Your task to perform on an android device: Show me popular games on the Play Store Image 0: 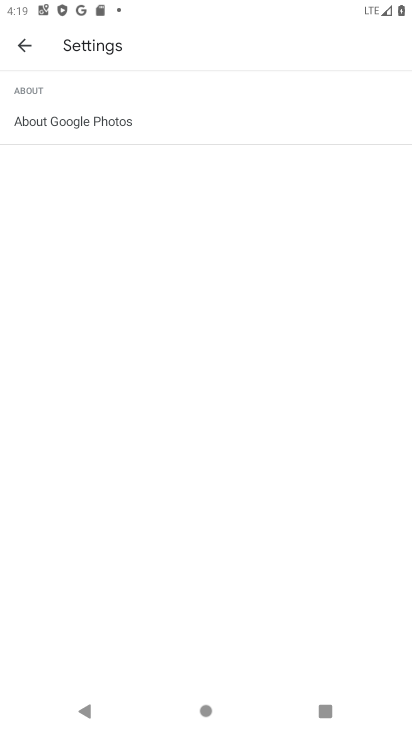
Step 0: press home button
Your task to perform on an android device: Show me popular games on the Play Store Image 1: 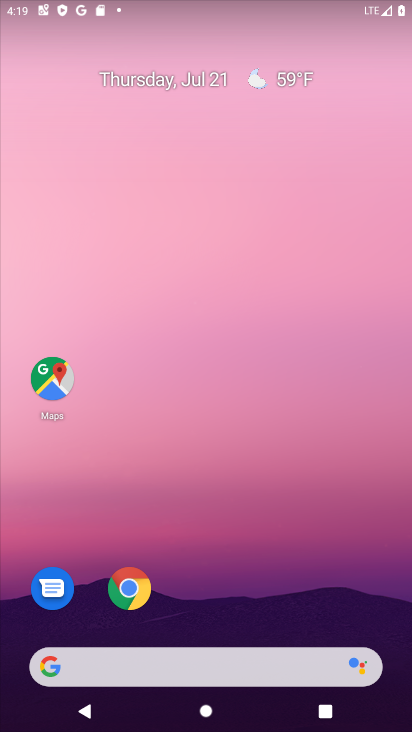
Step 1: drag from (229, 727) to (229, 293)
Your task to perform on an android device: Show me popular games on the Play Store Image 2: 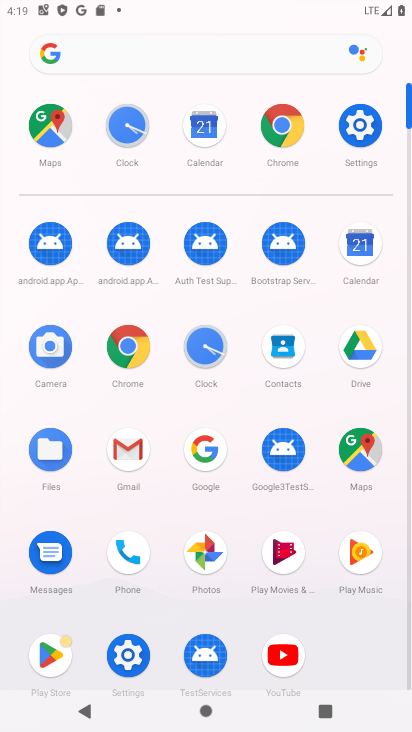
Step 2: click (48, 653)
Your task to perform on an android device: Show me popular games on the Play Store Image 3: 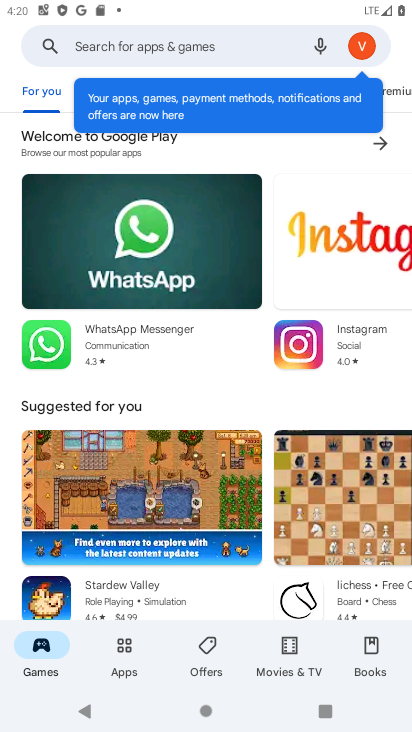
Step 3: drag from (169, 580) to (190, 267)
Your task to perform on an android device: Show me popular games on the Play Store Image 4: 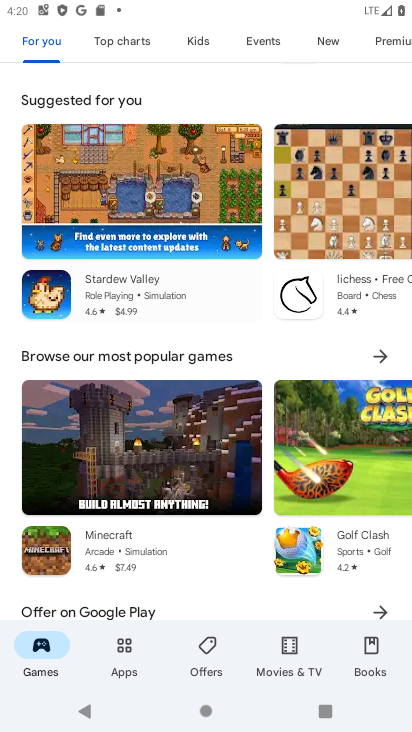
Step 4: drag from (261, 601) to (256, 318)
Your task to perform on an android device: Show me popular games on the Play Store Image 5: 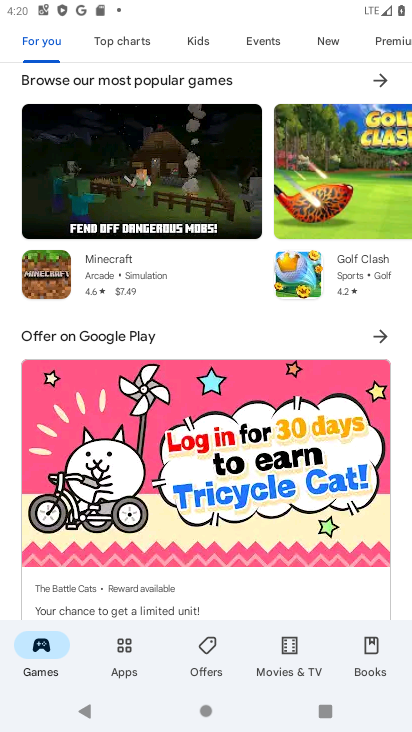
Step 5: drag from (261, 515) to (257, 189)
Your task to perform on an android device: Show me popular games on the Play Store Image 6: 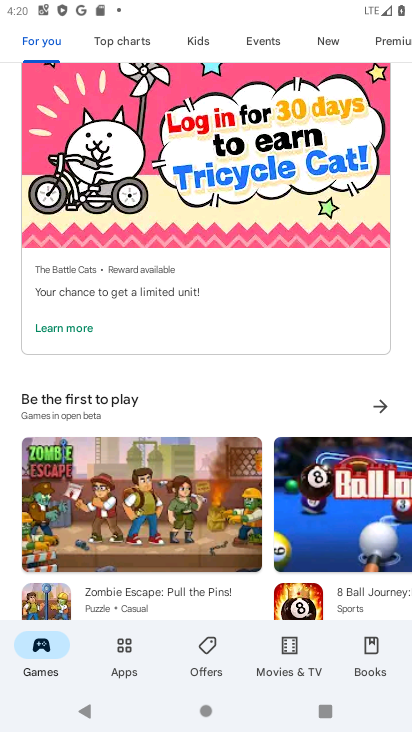
Step 6: drag from (231, 600) to (237, 186)
Your task to perform on an android device: Show me popular games on the Play Store Image 7: 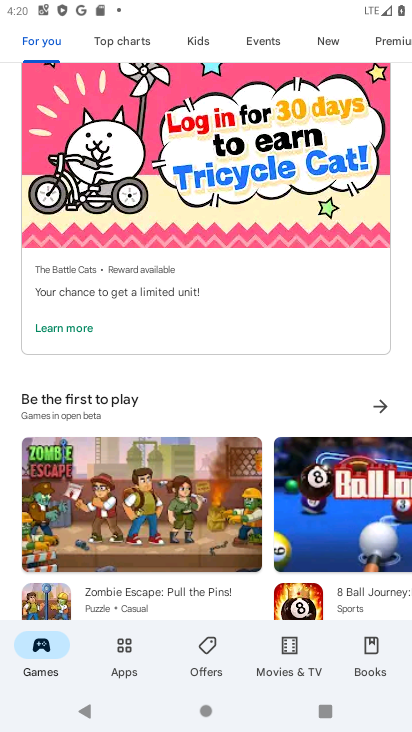
Step 7: drag from (242, 562) to (222, 202)
Your task to perform on an android device: Show me popular games on the Play Store Image 8: 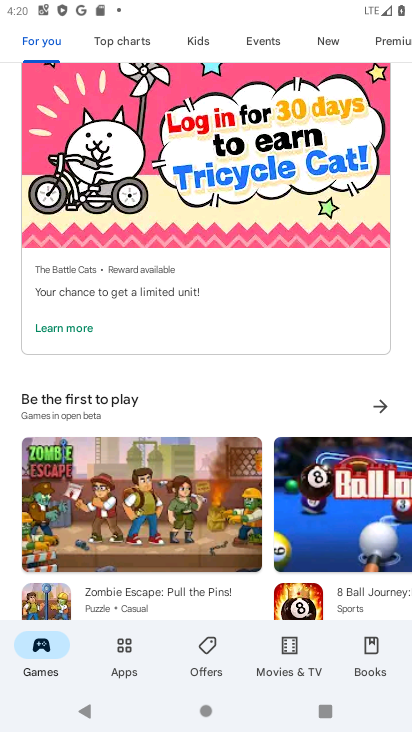
Step 8: drag from (257, 407) to (257, 122)
Your task to perform on an android device: Show me popular games on the Play Store Image 9: 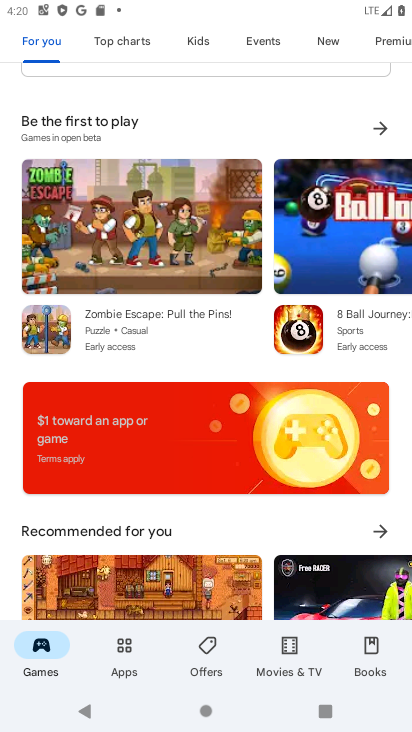
Step 9: drag from (249, 584) to (244, 321)
Your task to perform on an android device: Show me popular games on the Play Store Image 10: 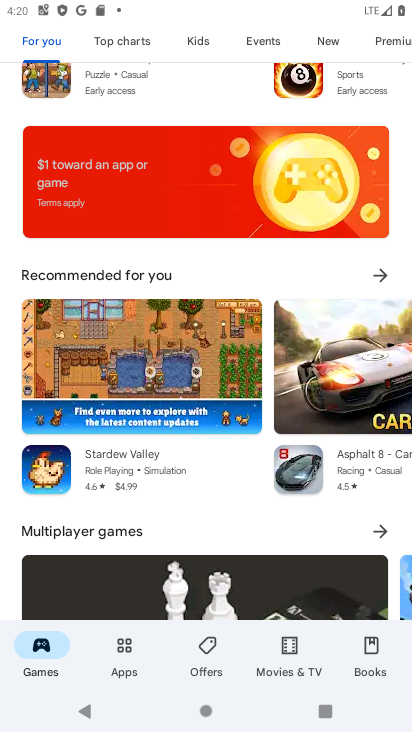
Step 10: drag from (221, 562) to (206, 250)
Your task to perform on an android device: Show me popular games on the Play Store Image 11: 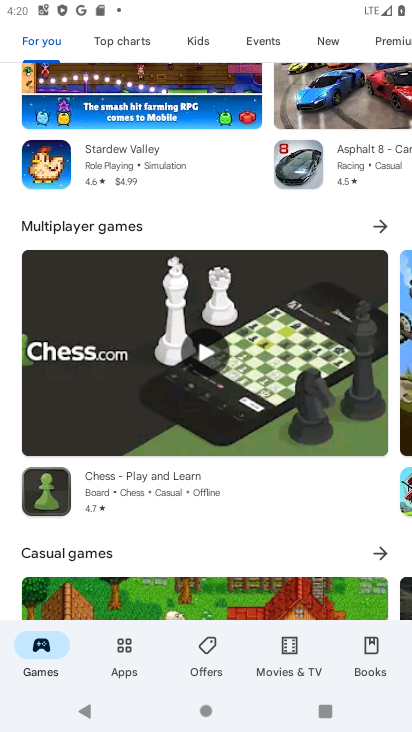
Step 11: drag from (198, 536) to (191, 255)
Your task to perform on an android device: Show me popular games on the Play Store Image 12: 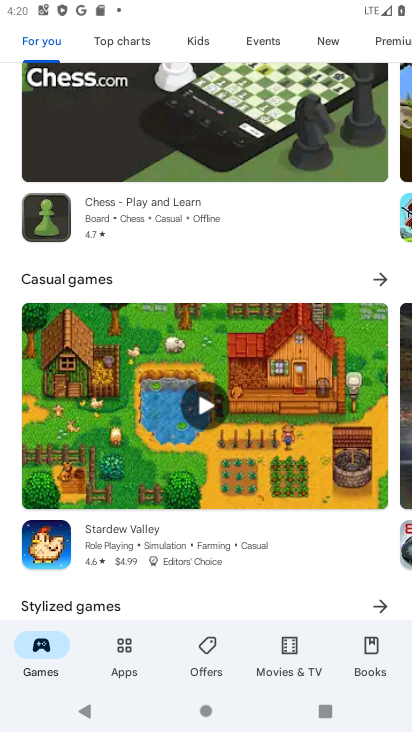
Step 12: drag from (162, 596) to (171, 207)
Your task to perform on an android device: Show me popular games on the Play Store Image 13: 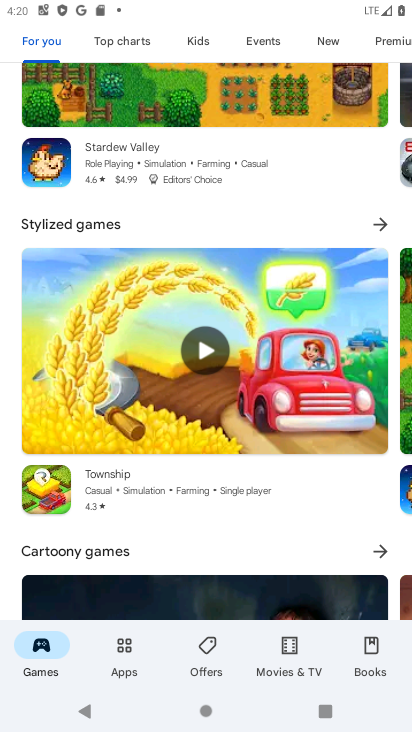
Step 13: drag from (210, 569) to (212, 86)
Your task to perform on an android device: Show me popular games on the Play Store Image 14: 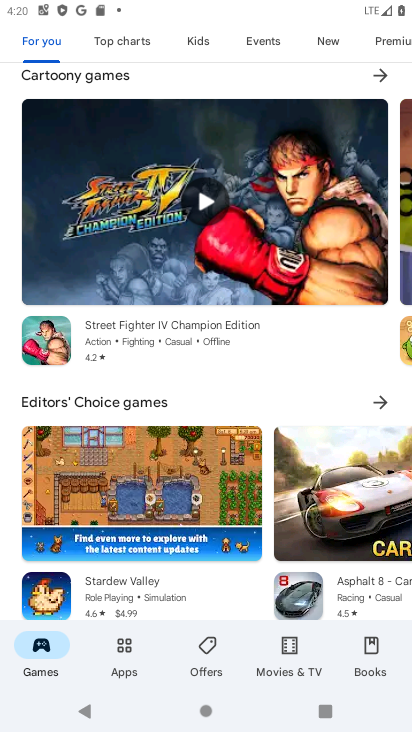
Step 14: drag from (186, 600) to (195, 207)
Your task to perform on an android device: Show me popular games on the Play Store Image 15: 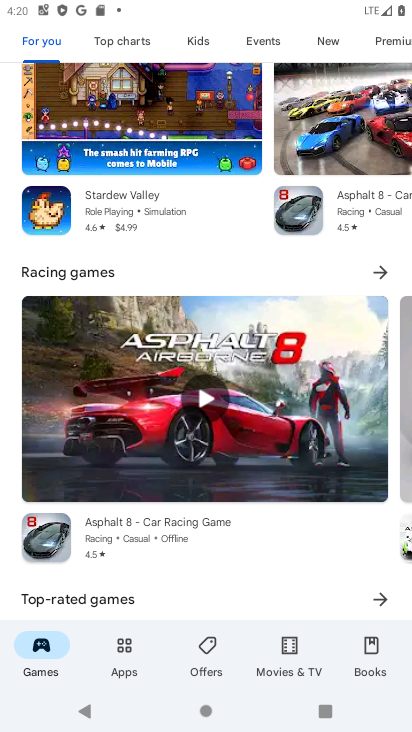
Step 15: drag from (278, 149) to (270, 615)
Your task to perform on an android device: Show me popular games on the Play Store Image 16: 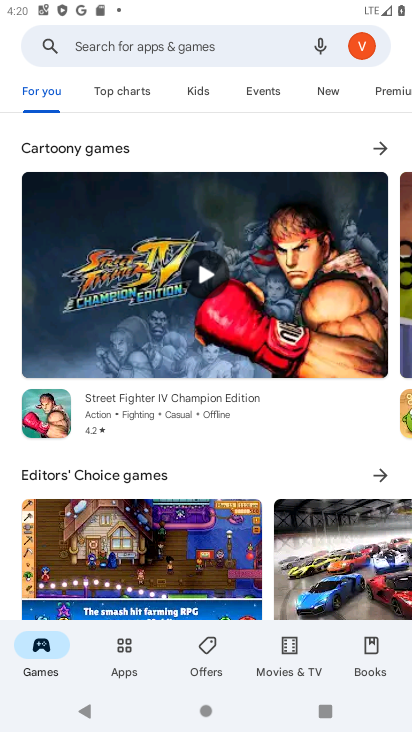
Step 16: drag from (246, 576) to (232, 169)
Your task to perform on an android device: Show me popular games on the Play Store Image 17: 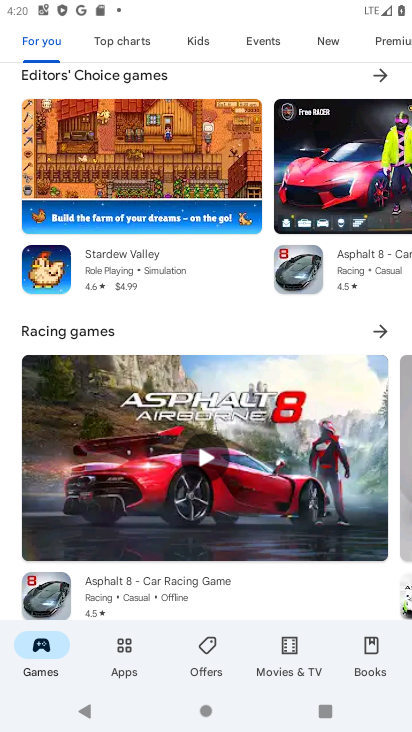
Step 17: drag from (249, 555) to (249, 257)
Your task to perform on an android device: Show me popular games on the Play Store Image 18: 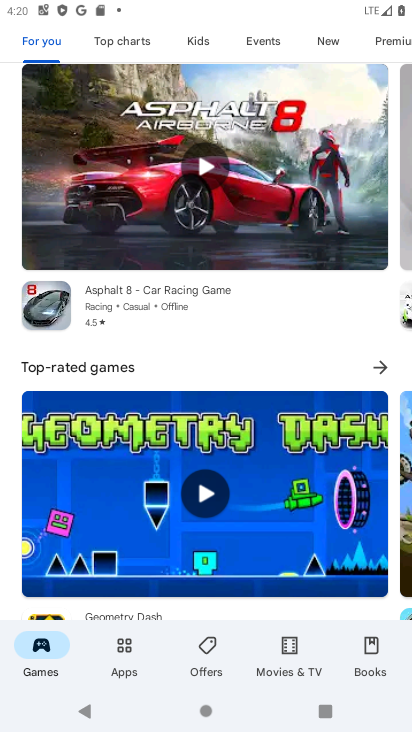
Step 18: drag from (234, 523) to (235, 233)
Your task to perform on an android device: Show me popular games on the Play Store Image 19: 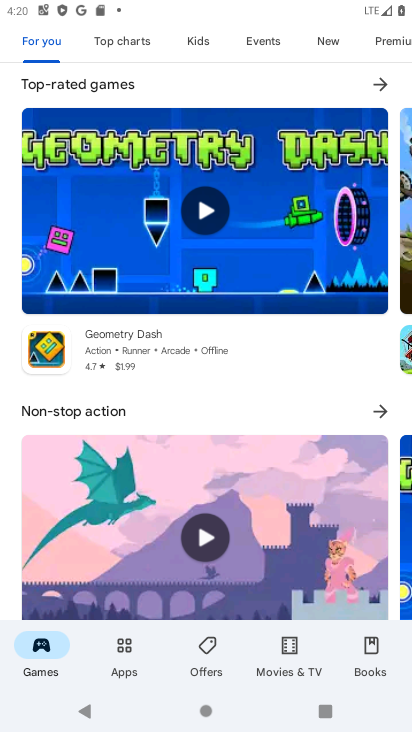
Step 19: drag from (209, 558) to (204, 172)
Your task to perform on an android device: Show me popular games on the Play Store Image 20: 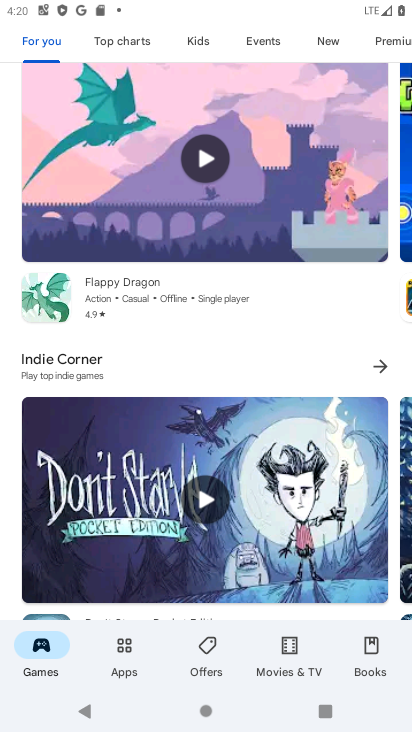
Step 20: drag from (250, 159) to (253, 558)
Your task to perform on an android device: Show me popular games on the Play Store Image 21: 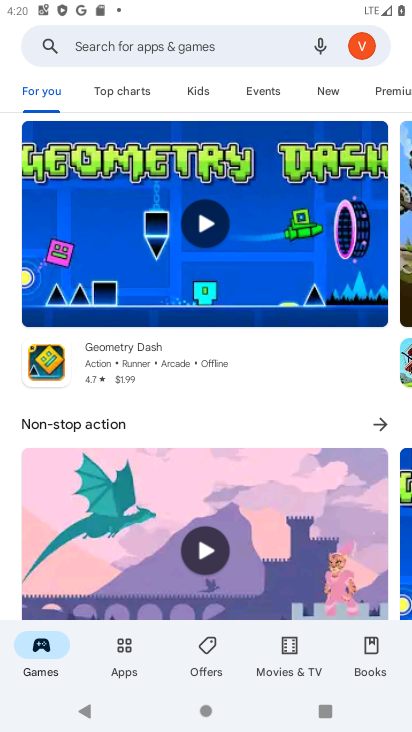
Step 21: click (43, 645)
Your task to perform on an android device: Show me popular games on the Play Store Image 22: 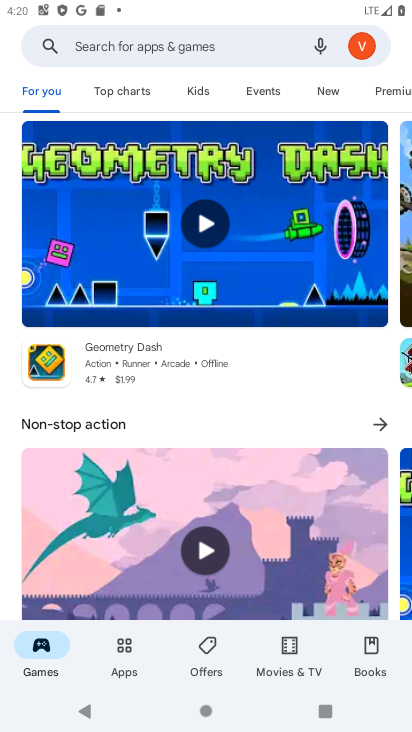
Step 22: drag from (217, 141) to (215, 605)
Your task to perform on an android device: Show me popular games on the Play Store Image 23: 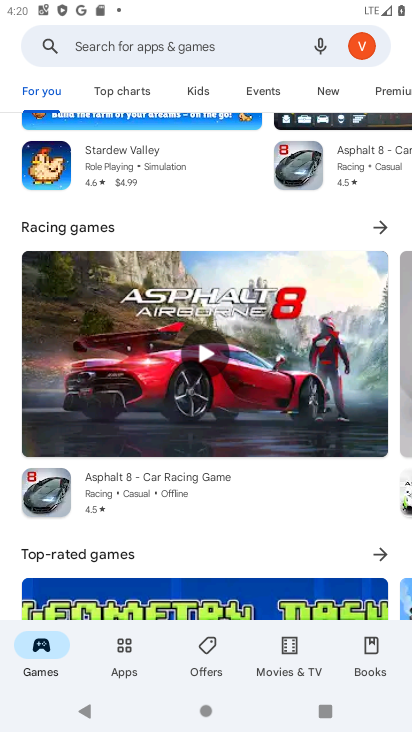
Step 23: drag from (195, 182) to (179, 652)
Your task to perform on an android device: Show me popular games on the Play Store Image 24: 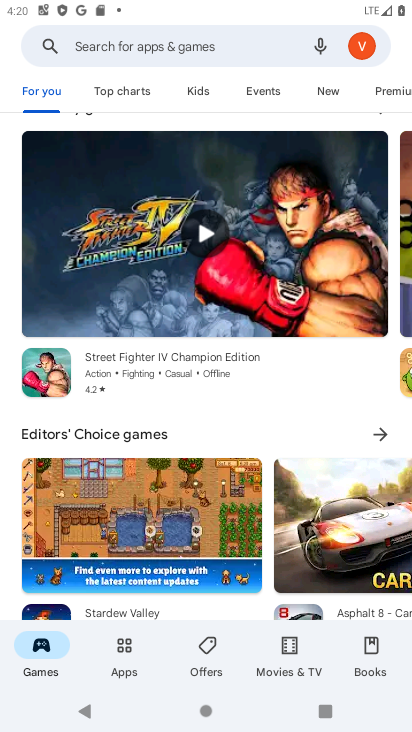
Step 24: drag from (217, 191) to (196, 622)
Your task to perform on an android device: Show me popular games on the Play Store Image 25: 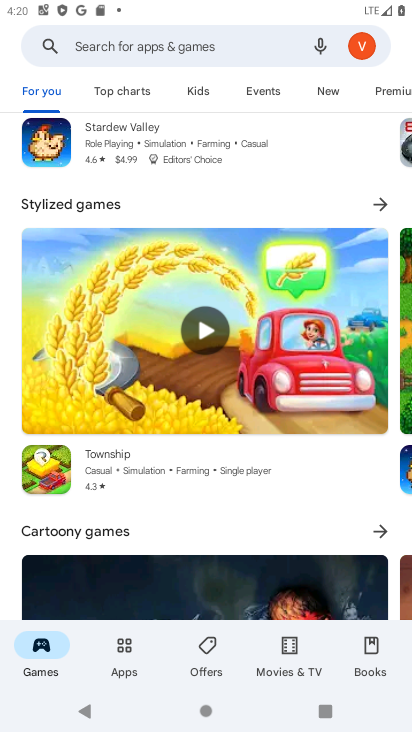
Step 25: drag from (198, 224) to (195, 540)
Your task to perform on an android device: Show me popular games on the Play Store Image 26: 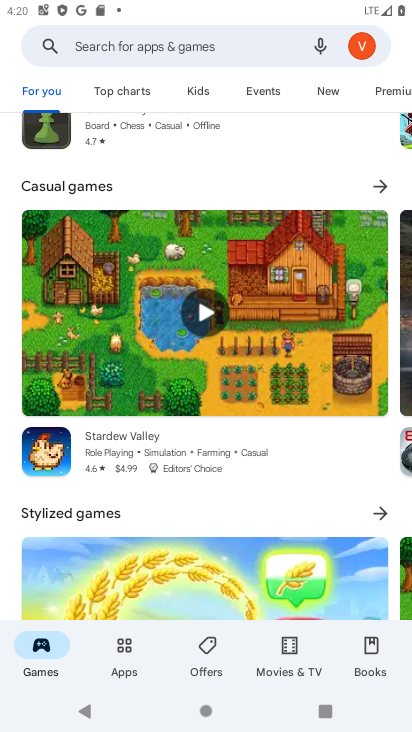
Step 26: drag from (211, 172) to (207, 547)
Your task to perform on an android device: Show me popular games on the Play Store Image 27: 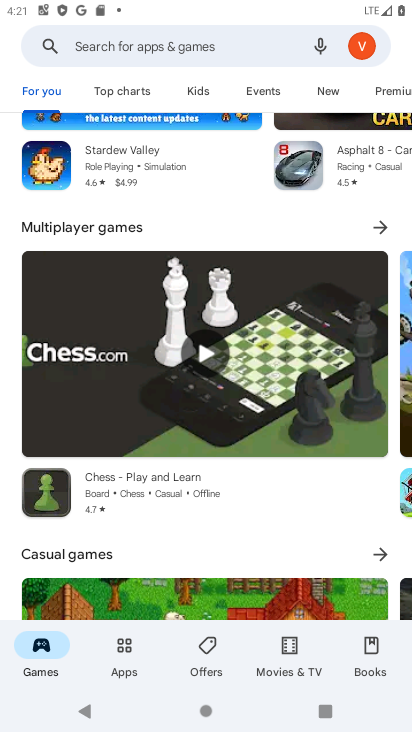
Step 27: drag from (237, 195) to (243, 560)
Your task to perform on an android device: Show me popular games on the Play Store Image 28: 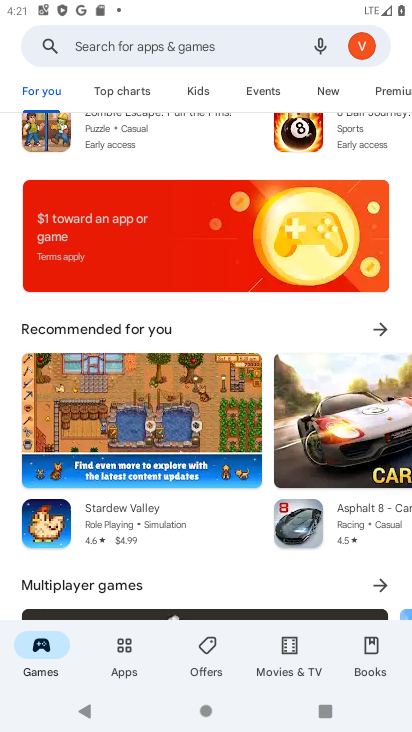
Step 28: drag from (187, 152) to (182, 557)
Your task to perform on an android device: Show me popular games on the Play Store Image 29: 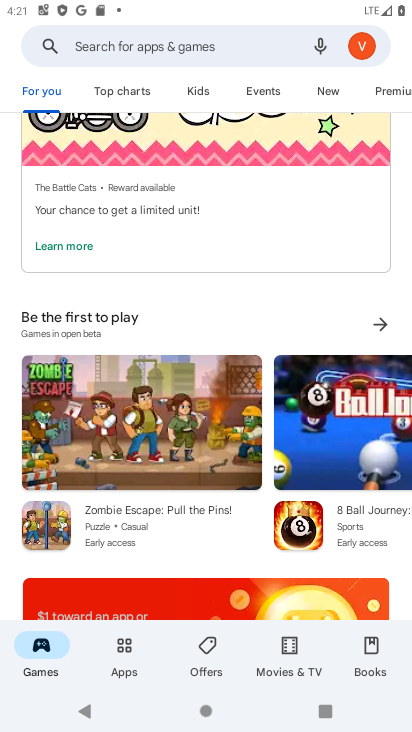
Step 29: drag from (179, 234) to (172, 595)
Your task to perform on an android device: Show me popular games on the Play Store Image 30: 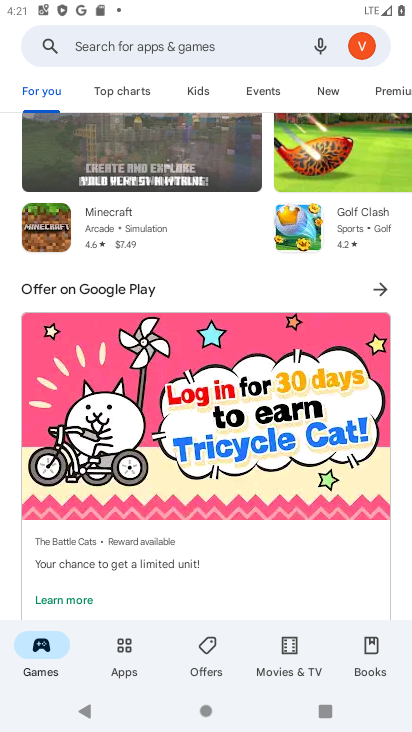
Step 30: drag from (222, 204) to (234, 558)
Your task to perform on an android device: Show me popular games on the Play Store Image 31: 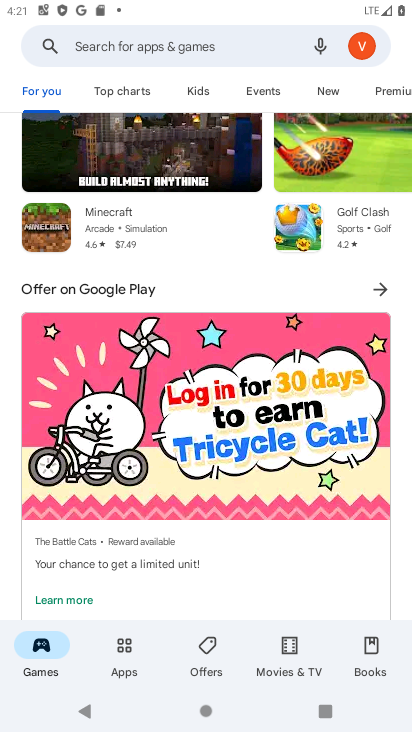
Step 31: drag from (206, 222) to (227, 521)
Your task to perform on an android device: Show me popular games on the Play Store Image 32: 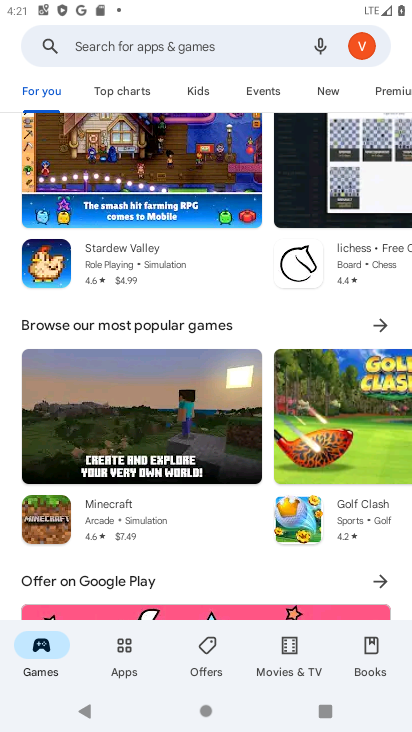
Step 32: click (374, 322)
Your task to perform on an android device: Show me popular games on the Play Store Image 33: 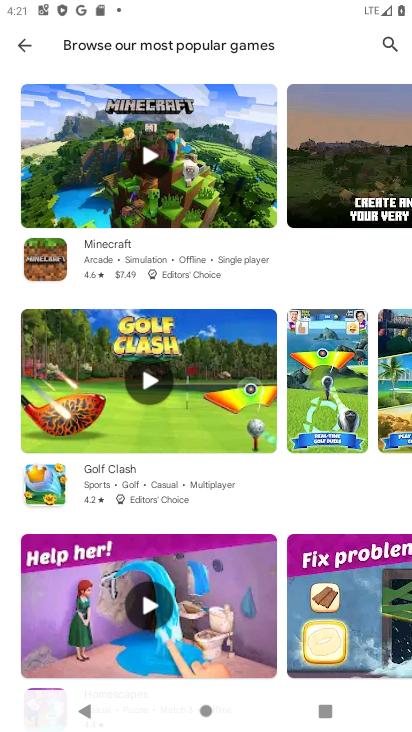
Step 33: task complete